Your task to perform on an android device: Go to Wikipedia Image 0: 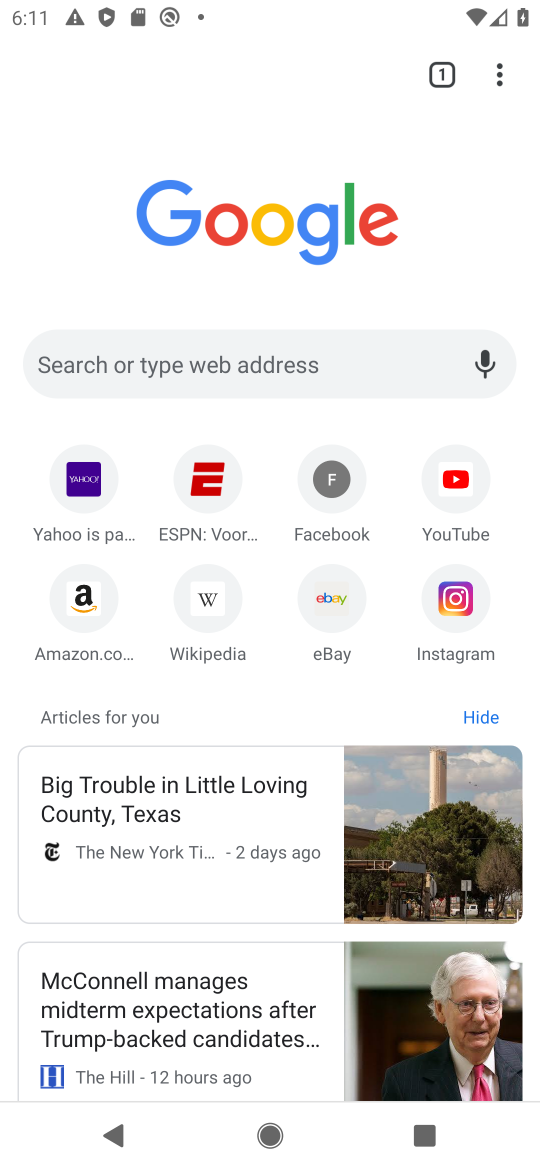
Step 0: press home button
Your task to perform on an android device: Go to Wikipedia Image 1: 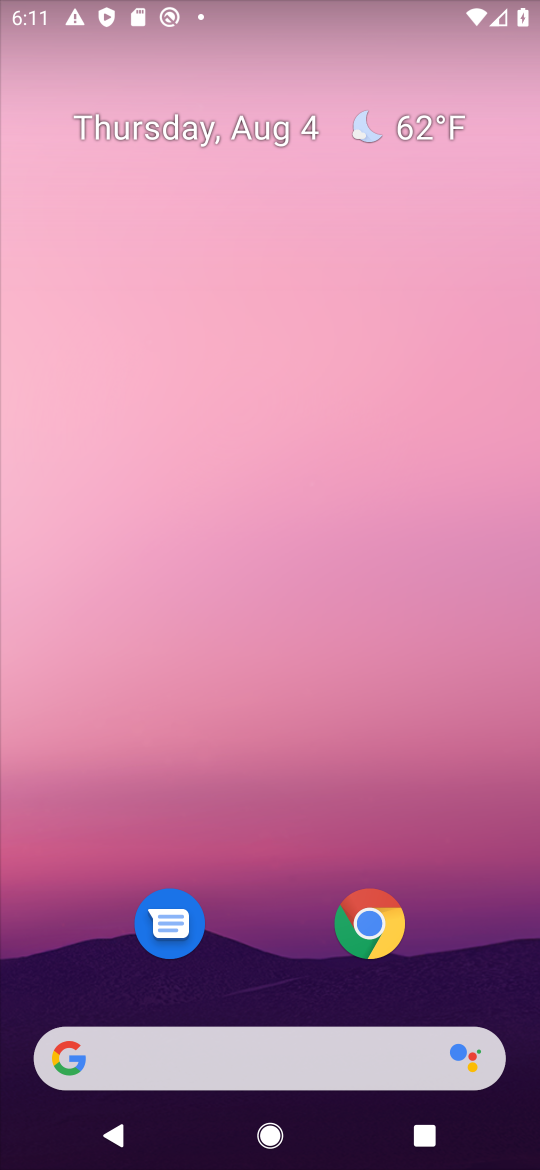
Step 1: click (379, 937)
Your task to perform on an android device: Go to Wikipedia Image 2: 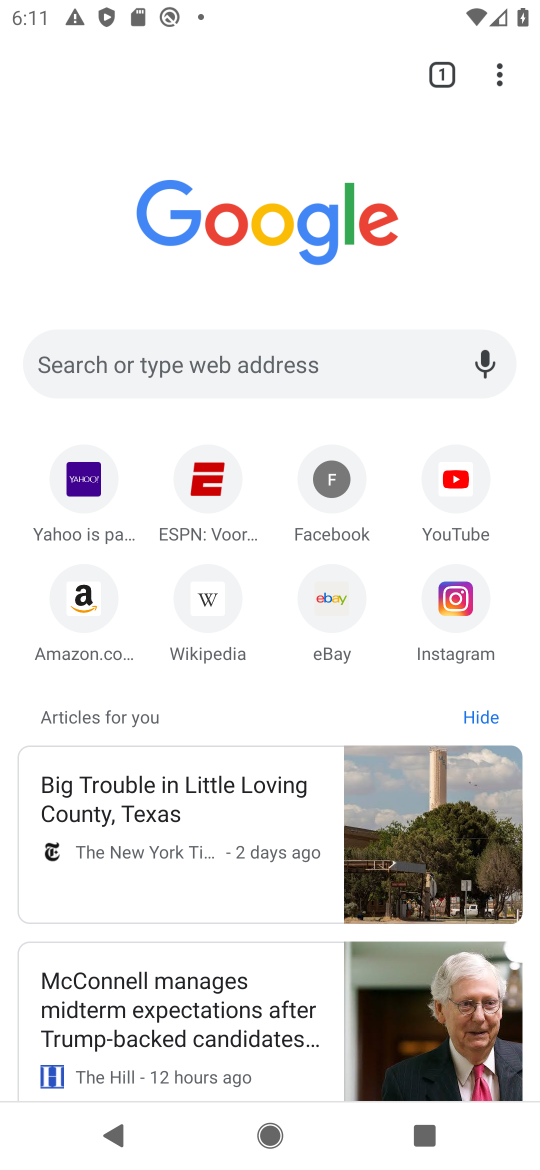
Step 2: click (499, 64)
Your task to perform on an android device: Go to Wikipedia Image 3: 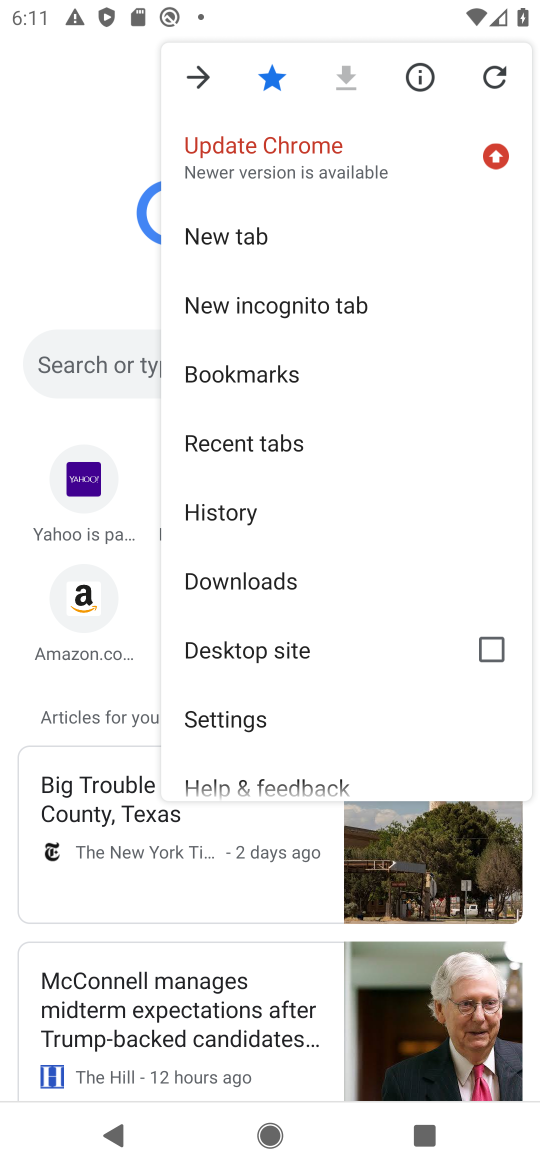
Step 3: click (149, 672)
Your task to perform on an android device: Go to Wikipedia Image 4: 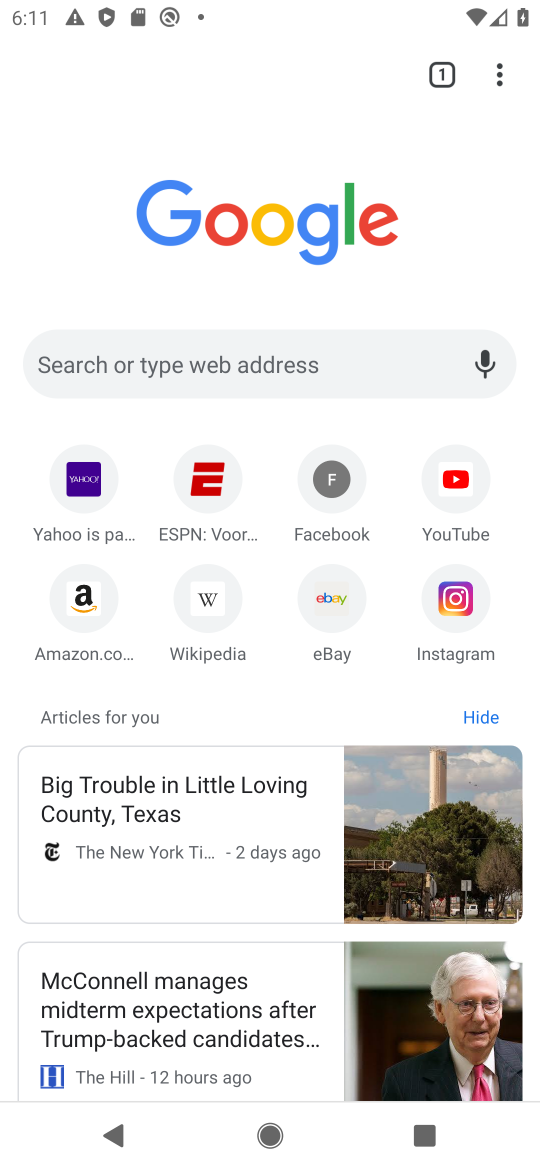
Step 4: click (222, 597)
Your task to perform on an android device: Go to Wikipedia Image 5: 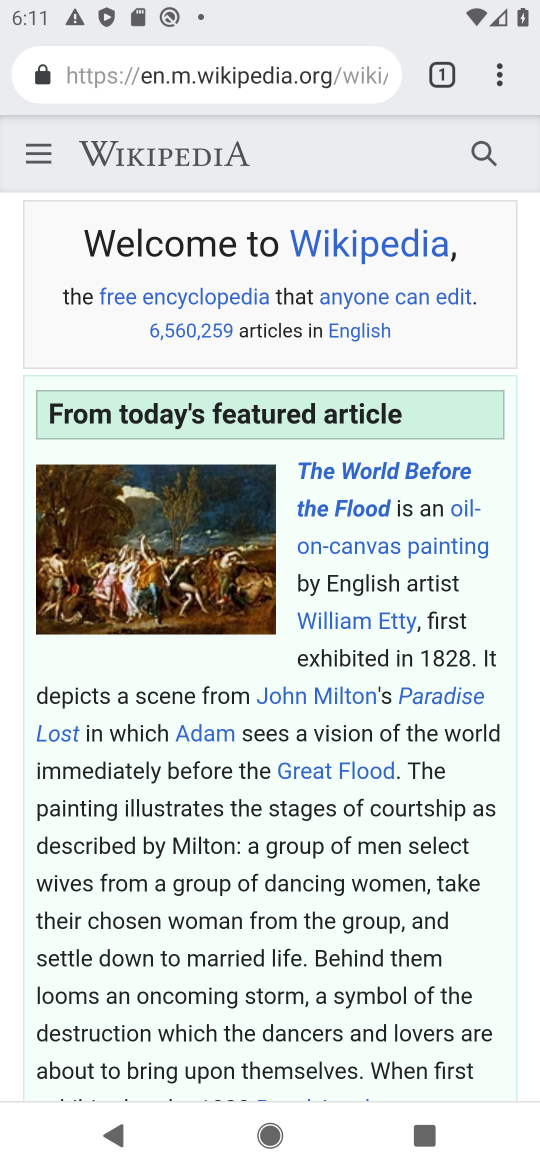
Step 5: task complete